Your task to perform on an android device: open app "Google Duo" Image 0: 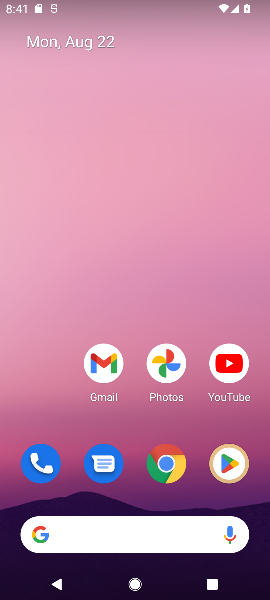
Step 0: click (227, 464)
Your task to perform on an android device: open app "Google Duo" Image 1: 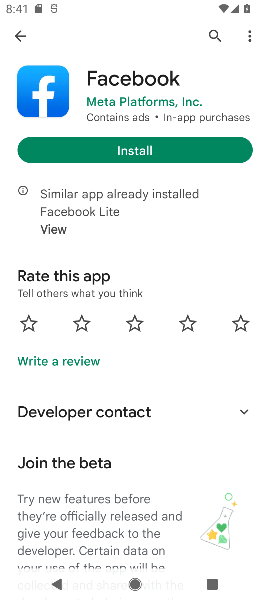
Step 1: click (22, 40)
Your task to perform on an android device: open app "Google Duo" Image 2: 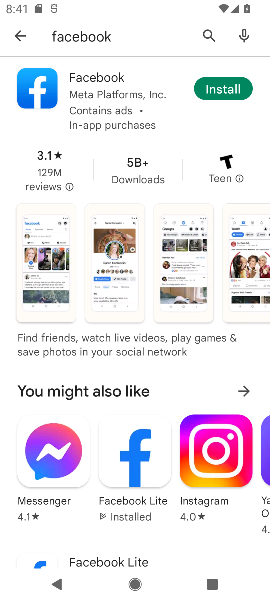
Step 2: click (19, 38)
Your task to perform on an android device: open app "Google Duo" Image 3: 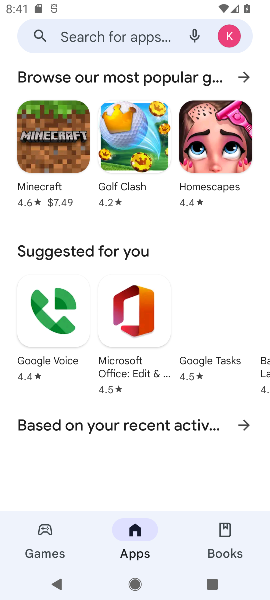
Step 3: click (78, 44)
Your task to perform on an android device: open app "Google Duo" Image 4: 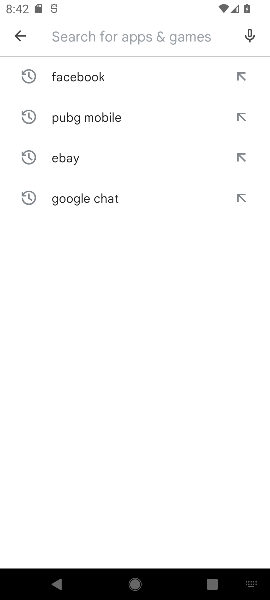
Step 4: type "Google Duo"
Your task to perform on an android device: open app "Google Duo" Image 5: 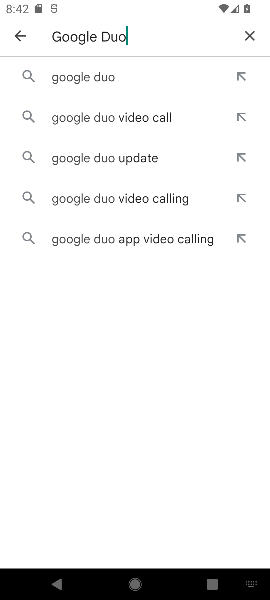
Step 5: click (90, 77)
Your task to perform on an android device: open app "Google Duo" Image 6: 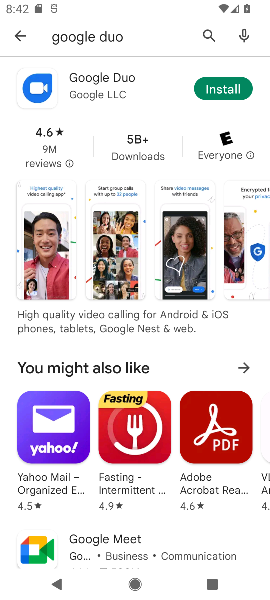
Step 6: click (230, 82)
Your task to perform on an android device: open app "Google Duo" Image 7: 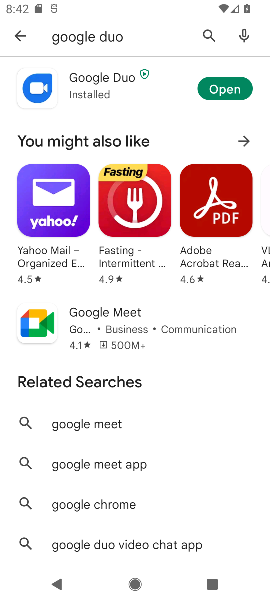
Step 7: click (230, 82)
Your task to perform on an android device: open app "Google Duo" Image 8: 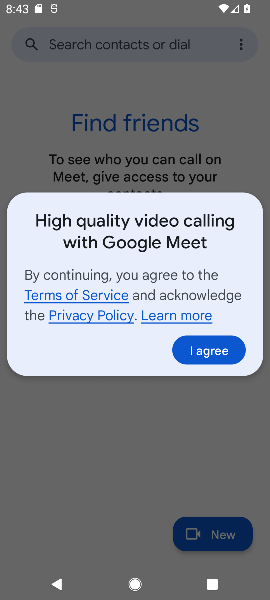
Step 8: click (219, 341)
Your task to perform on an android device: open app "Google Duo" Image 9: 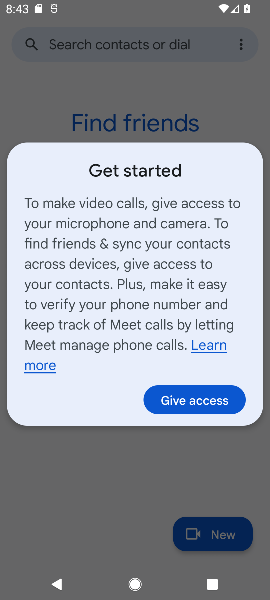
Step 9: click (185, 397)
Your task to perform on an android device: open app "Google Duo" Image 10: 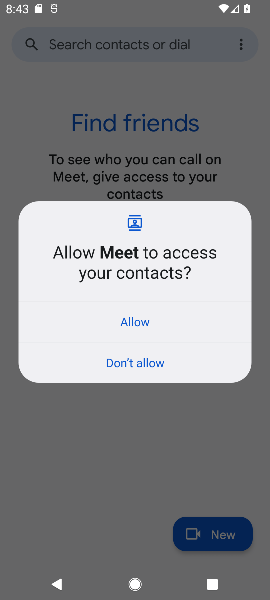
Step 10: task complete